Your task to perform on an android device: Go to settings Image 0: 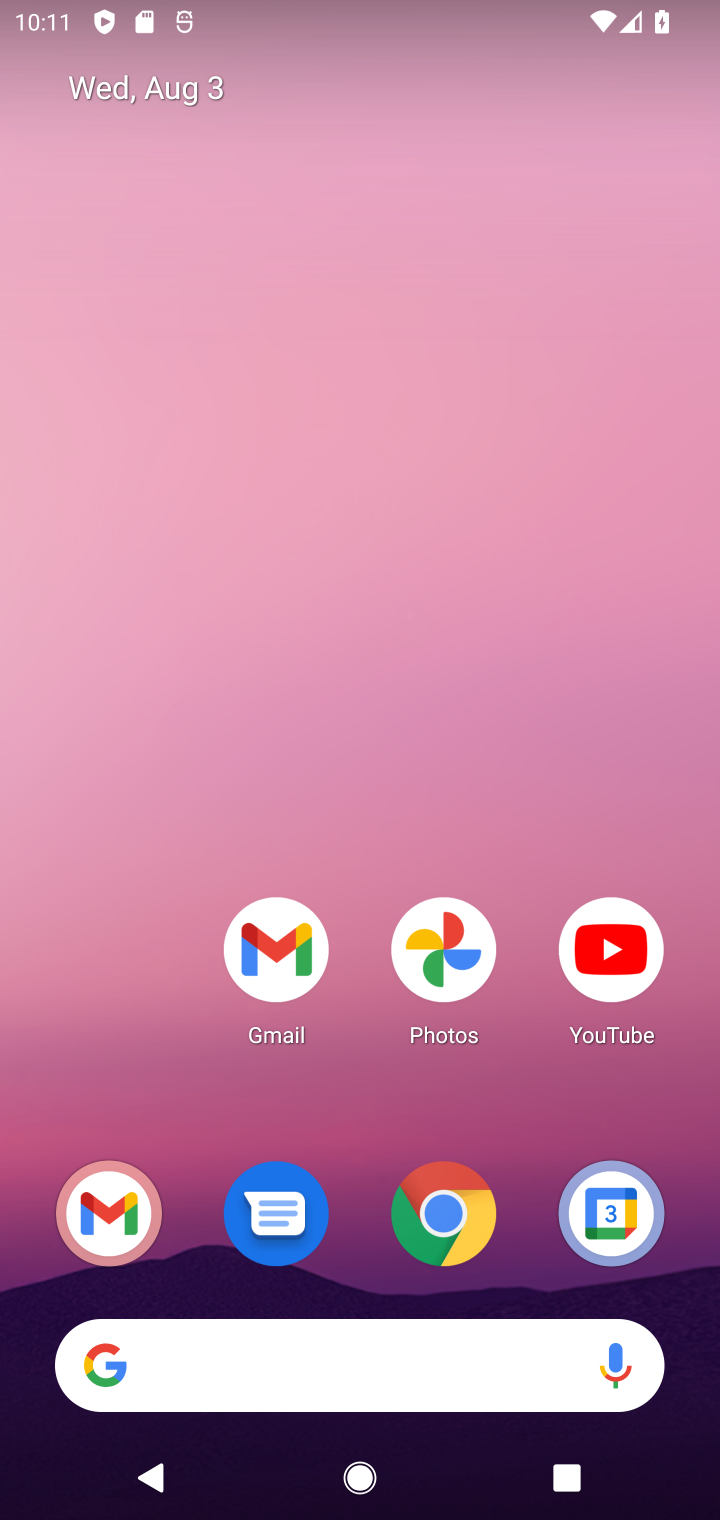
Step 0: drag from (395, 1127) to (55, 583)
Your task to perform on an android device: Go to settings Image 1: 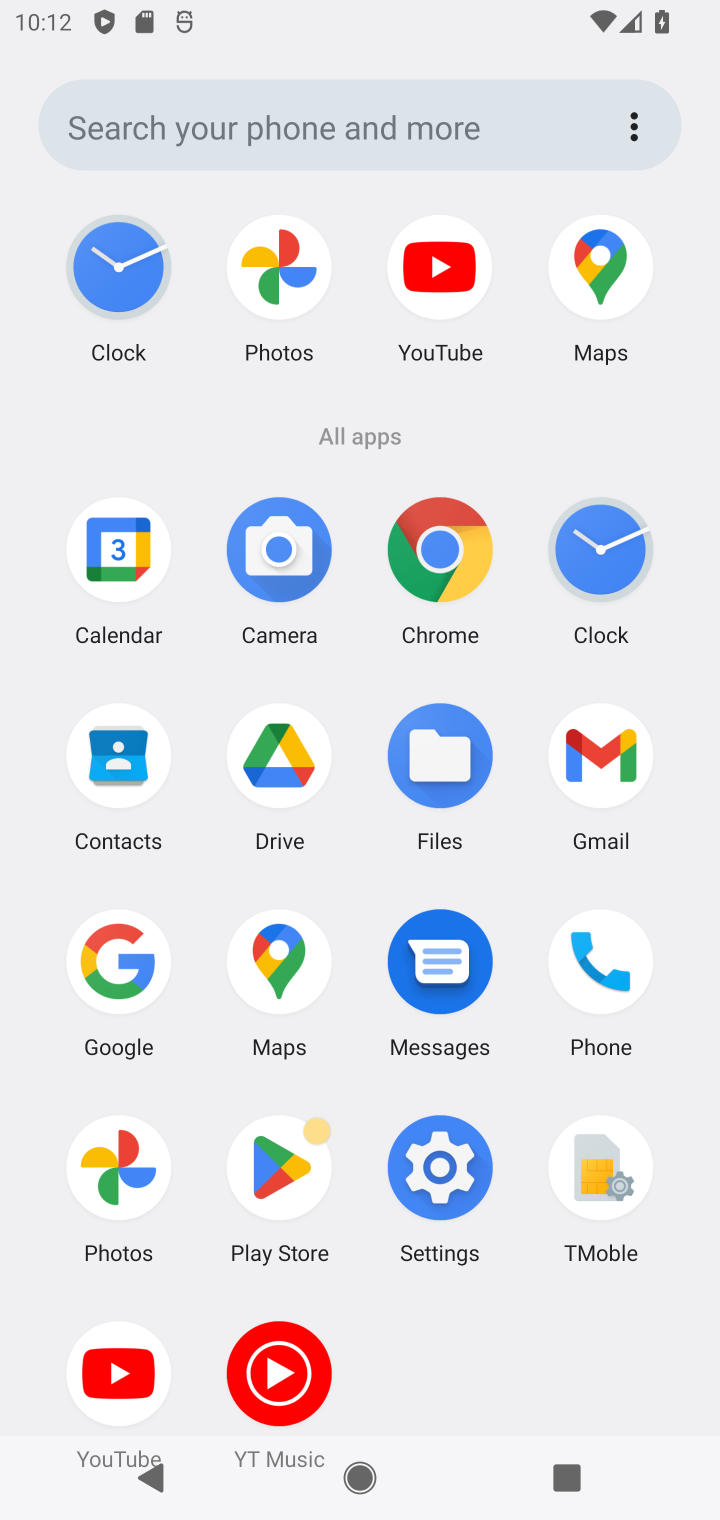
Step 1: click (451, 1195)
Your task to perform on an android device: Go to settings Image 2: 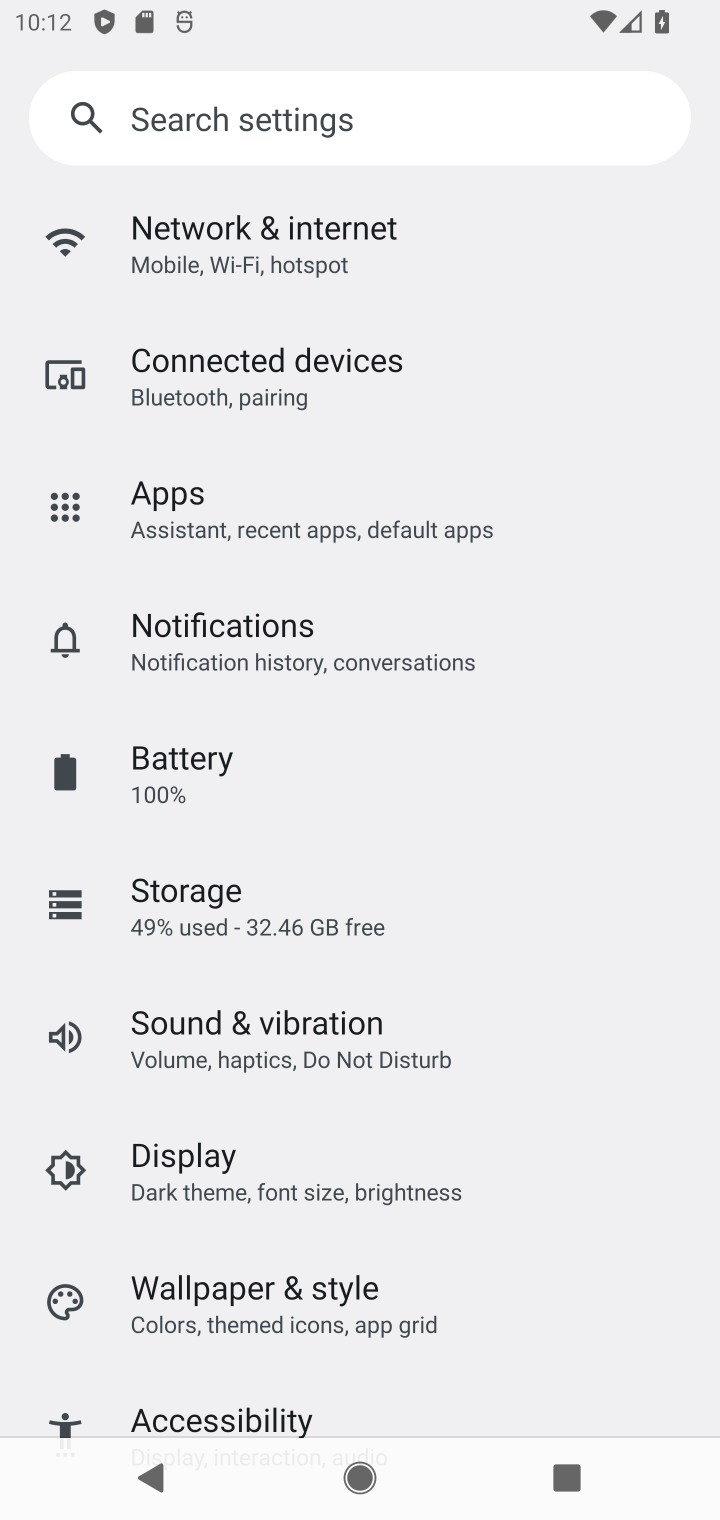
Step 2: task complete